Your task to perform on an android device: Turn off the flashlight Image 0: 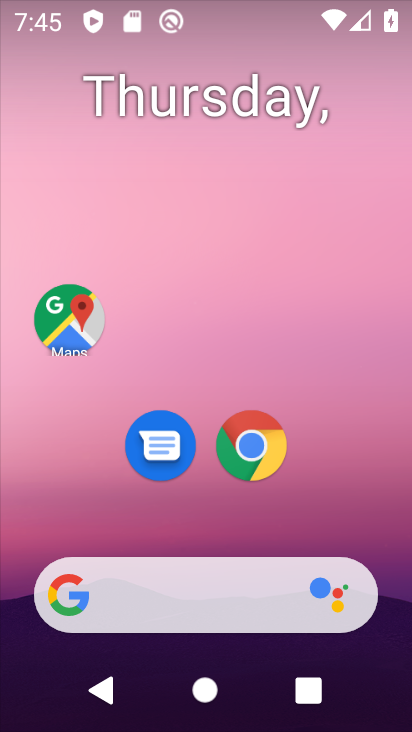
Step 0: drag from (208, 7) to (233, 666)
Your task to perform on an android device: Turn off the flashlight Image 1: 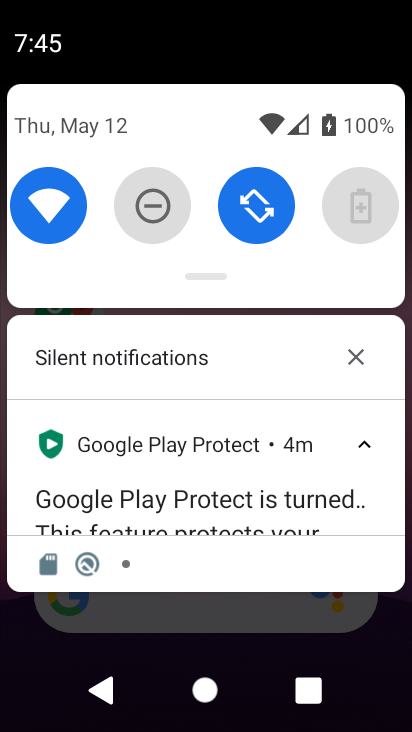
Step 1: task complete